Your task to perform on an android device: turn off notifications settings in the gmail app Image 0: 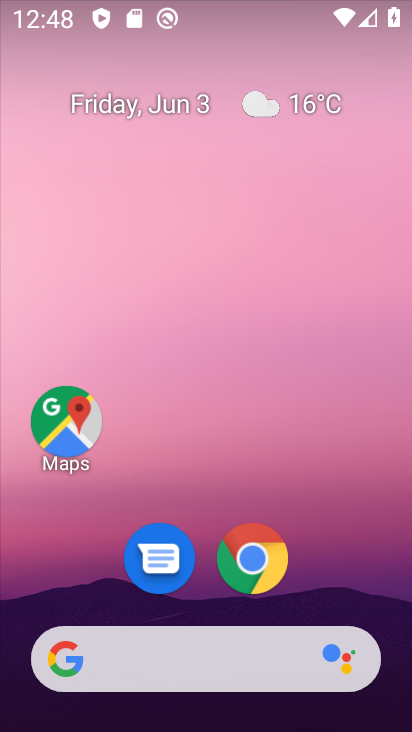
Step 0: drag from (367, 568) to (367, 233)
Your task to perform on an android device: turn off notifications settings in the gmail app Image 1: 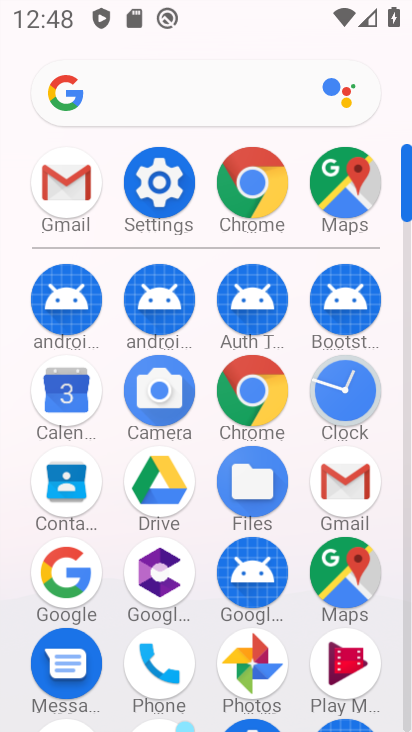
Step 1: click (334, 484)
Your task to perform on an android device: turn off notifications settings in the gmail app Image 2: 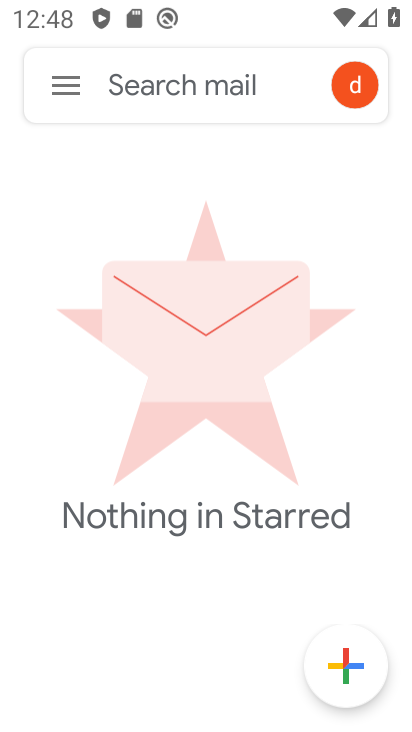
Step 2: click (67, 96)
Your task to perform on an android device: turn off notifications settings in the gmail app Image 3: 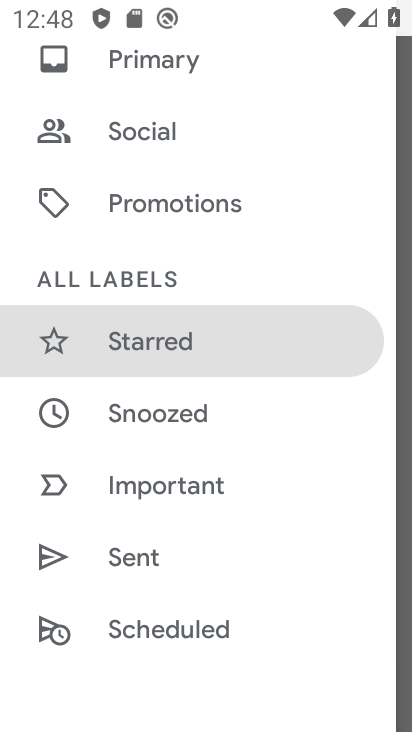
Step 3: drag from (293, 219) to (306, 376)
Your task to perform on an android device: turn off notifications settings in the gmail app Image 4: 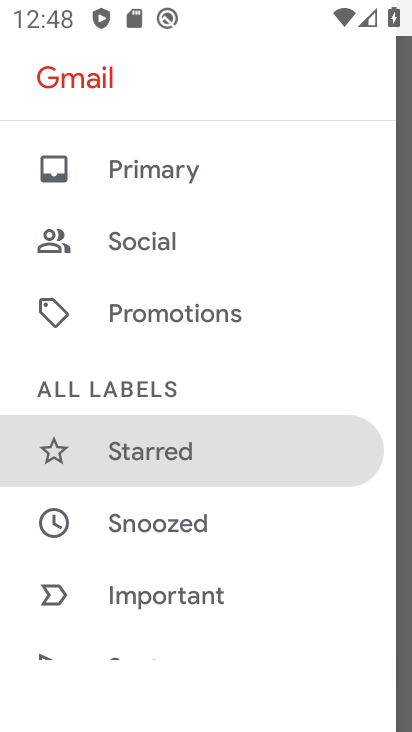
Step 4: drag from (298, 212) to (302, 387)
Your task to perform on an android device: turn off notifications settings in the gmail app Image 5: 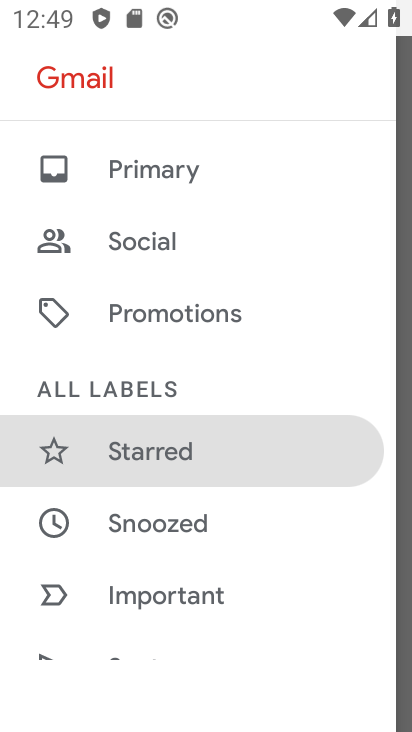
Step 5: drag from (299, 240) to (285, 170)
Your task to perform on an android device: turn off notifications settings in the gmail app Image 6: 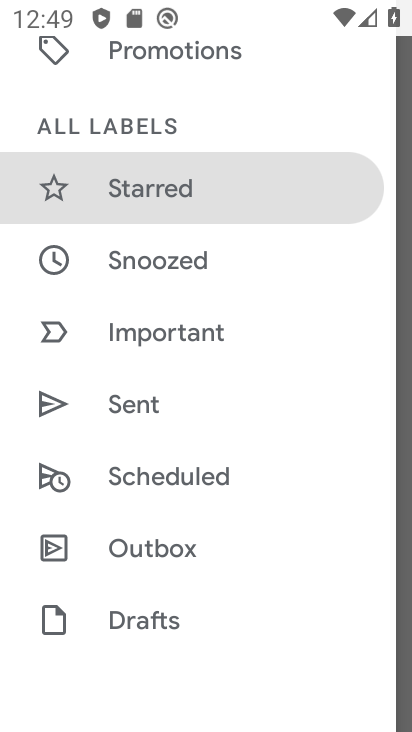
Step 6: drag from (268, 542) to (279, 196)
Your task to perform on an android device: turn off notifications settings in the gmail app Image 7: 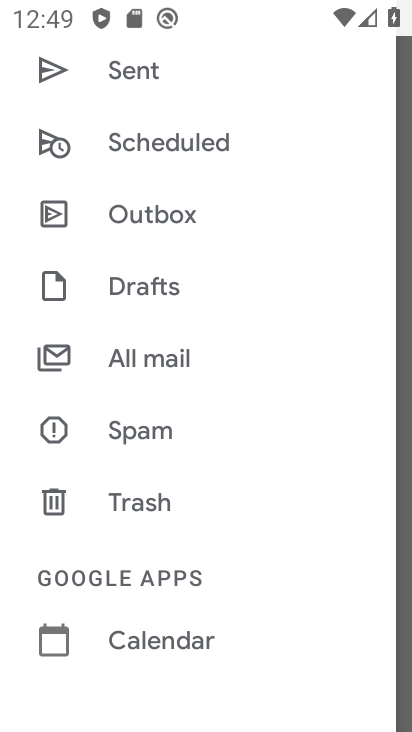
Step 7: drag from (249, 541) to (269, 277)
Your task to perform on an android device: turn off notifications settings in the gmail app Image 8: 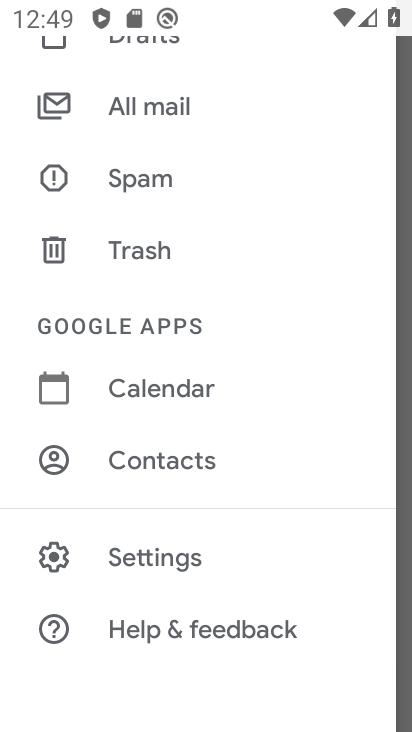
Step 8: click (226, 571)
Your task to perform on an android device: turn off notifications settings in the gmail app Image 9: 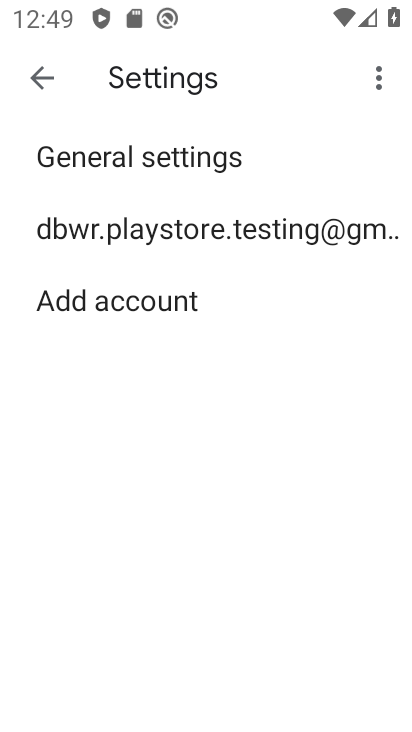
Step 9: click (225, 232)
Your task to perform on an android device: turn off notifications settings in the gmail app Image 10: 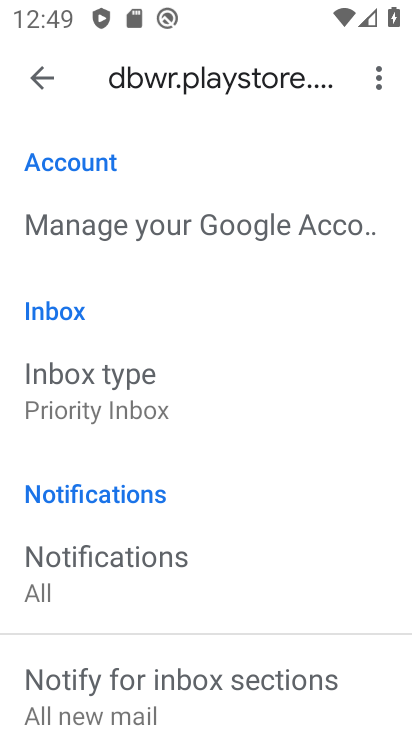
Step 10: drag from (286, 520) to (275, 404)
Your task to perform on an android device: turn off notifications settings in the gmail app Image 11: 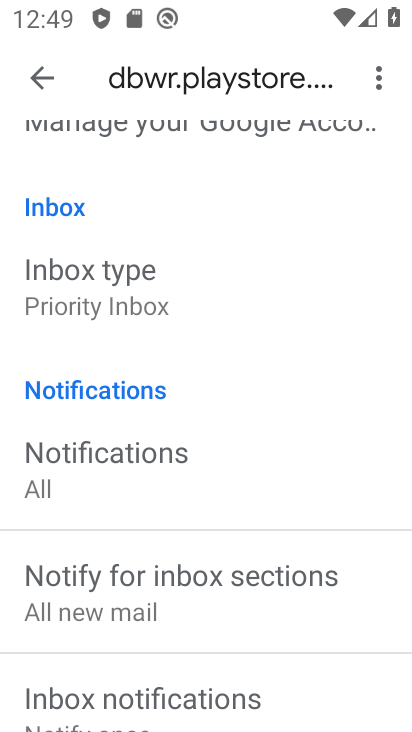
Step 11: drag from (266, 621) to (271, 490)
Your task to perform on an android device: turn off notifications settings in the gmail app Image 12: 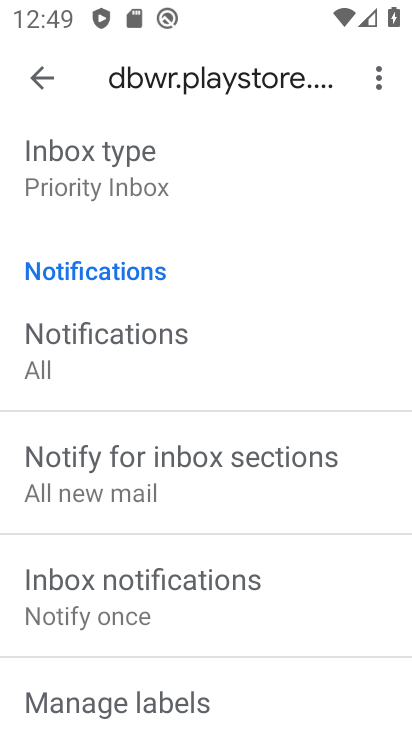
Step 12: drag from (281, 590) to (274, 389)
Your task to perform on an android device: turn off notifications settings in the gmail app Image 13: 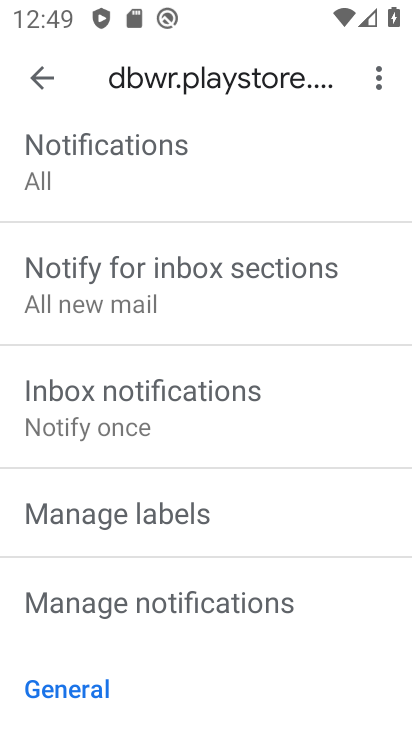
Step 13: click (245, 617)
Your task to perform on an android device: turn off notifications settings in the gmail app Image 14: 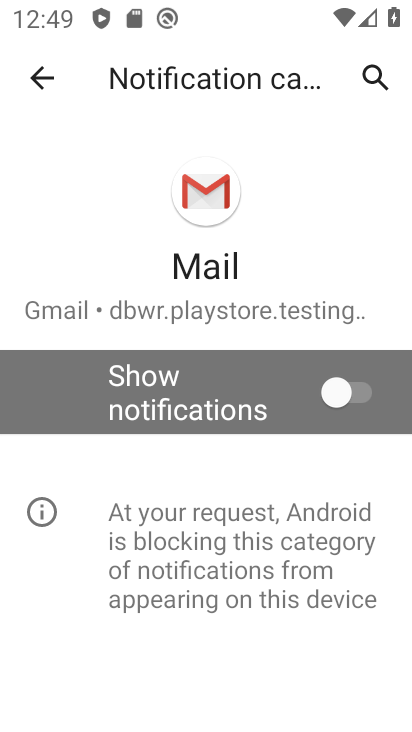
Step 14: task complete